Your task to perform on an android device: Open Amazon Image 0: 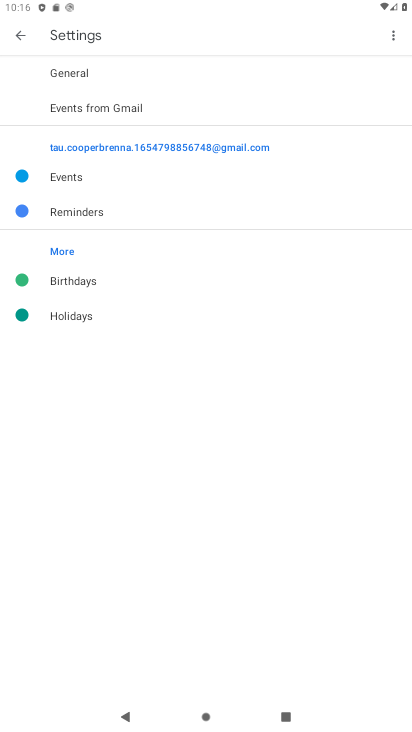
Step 0: press home button
Your task to perform on an android device: Open Amazon Image 1: 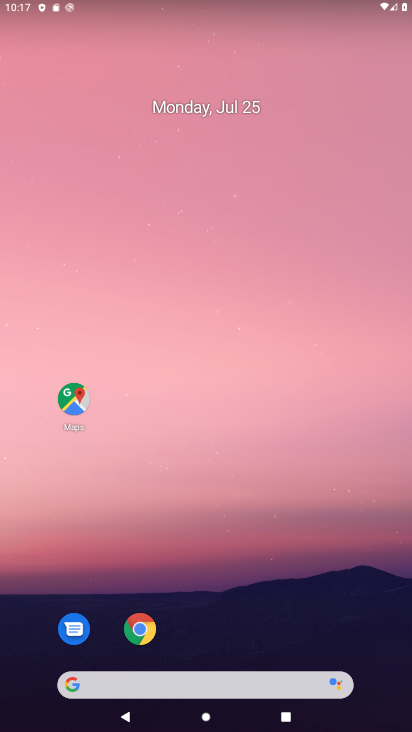
Step 1: click (143, 628)
Your task to perform on an android device: Open Amazon Image 2: 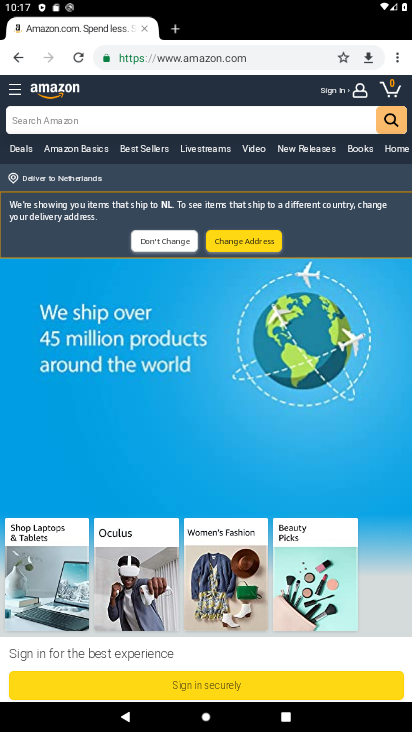
Step 2: task complete